Your task to perform on an android device: What's on the menu at Burger King? Image 0: 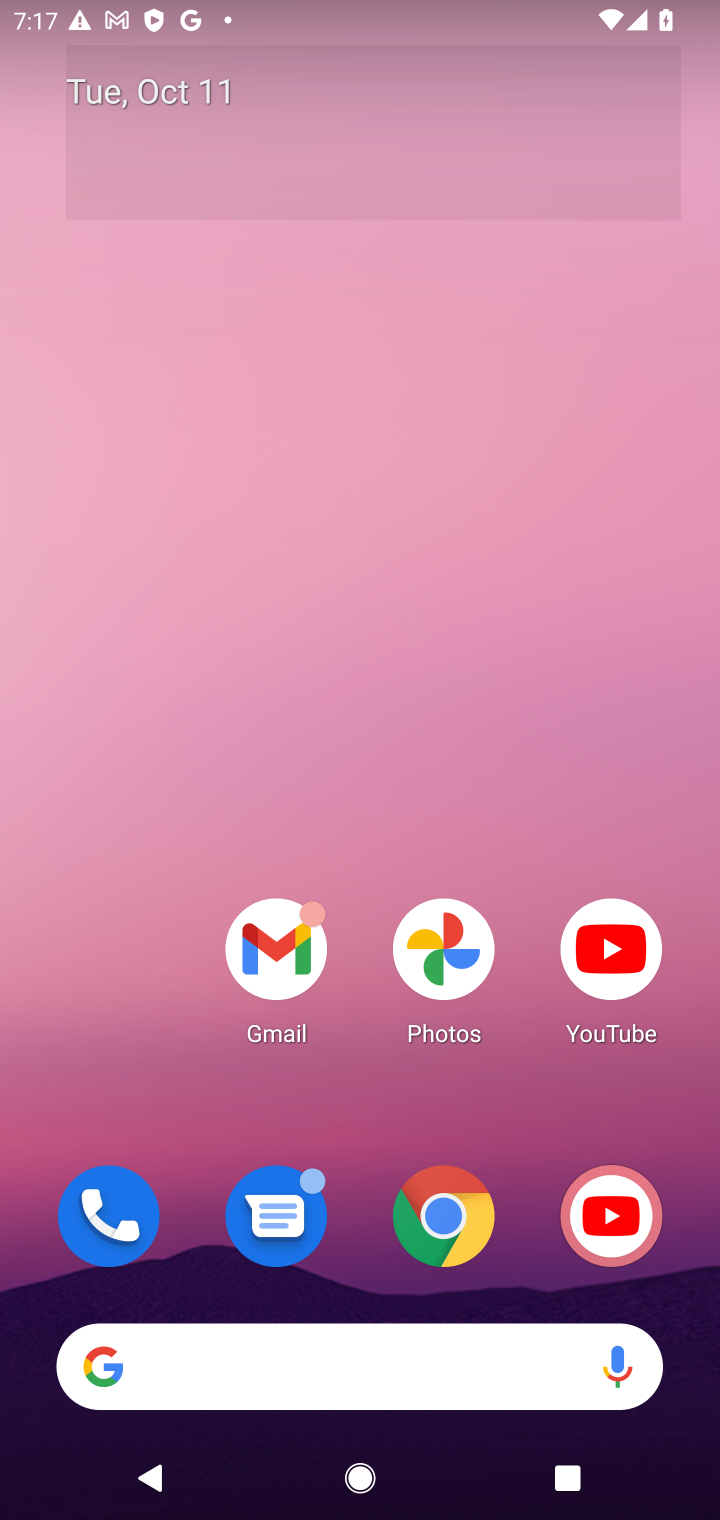
Step 0: click (463, 1202)
Your task to perform on an android device: What's on the menu at Burger King? Image 1: 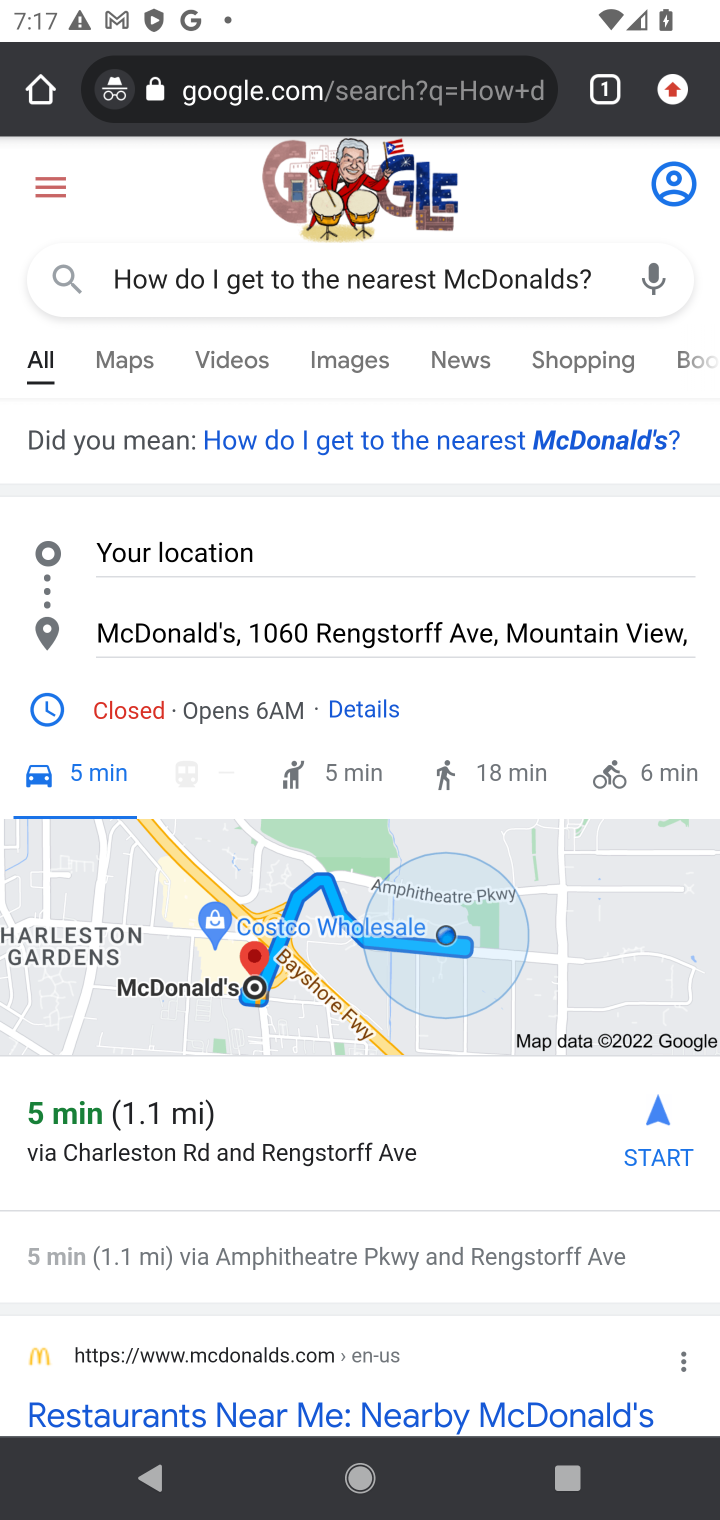
Step 1: click (547, 273)
Your task to perform on an android device: What's on the menu at Burger King? Image 2: 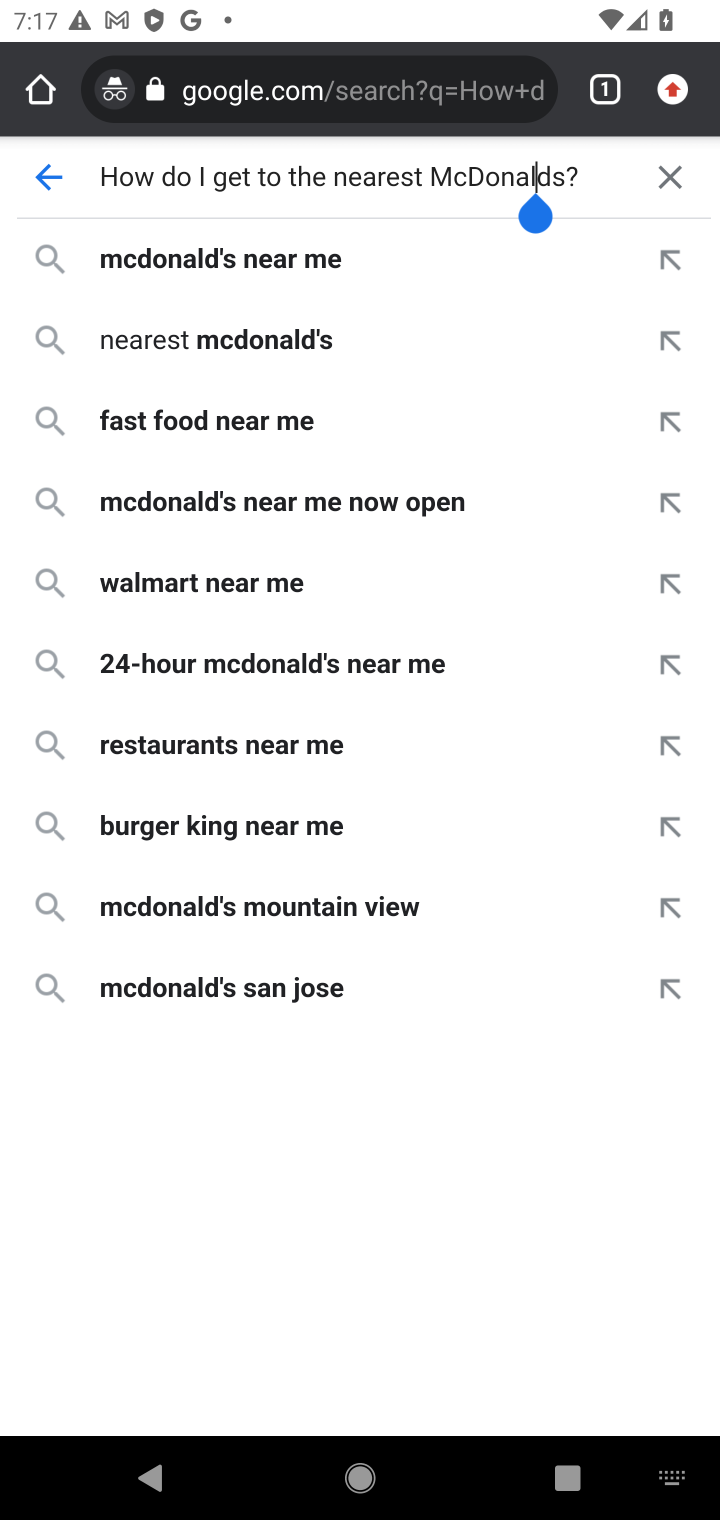
Step 2: click (677, 173)
Your task to perform on an android device: What's on the menu at Burger King? Image 3: 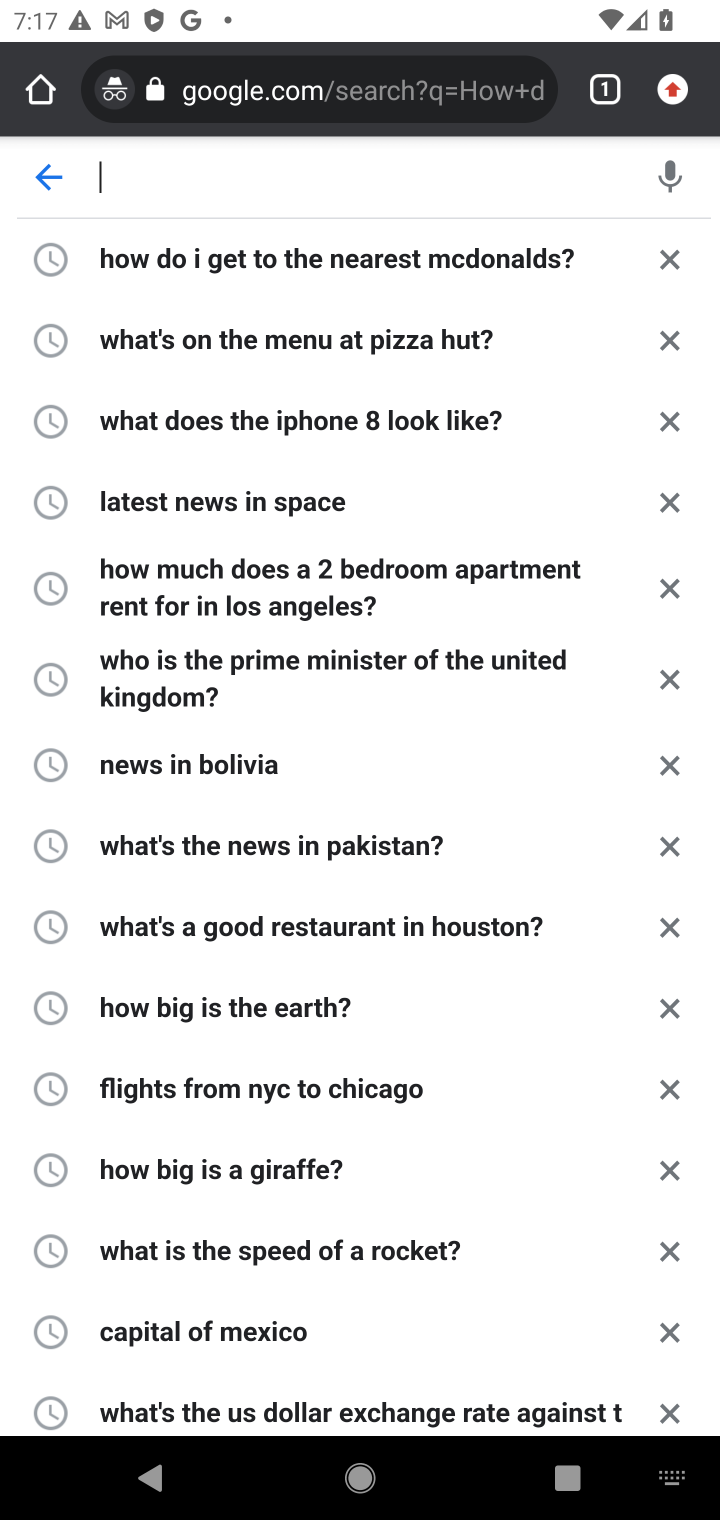
Step 3: type "What's on the menu at Burger King?"
Your task to perform on an android device: What's on the menu at Burger King? Image 4: 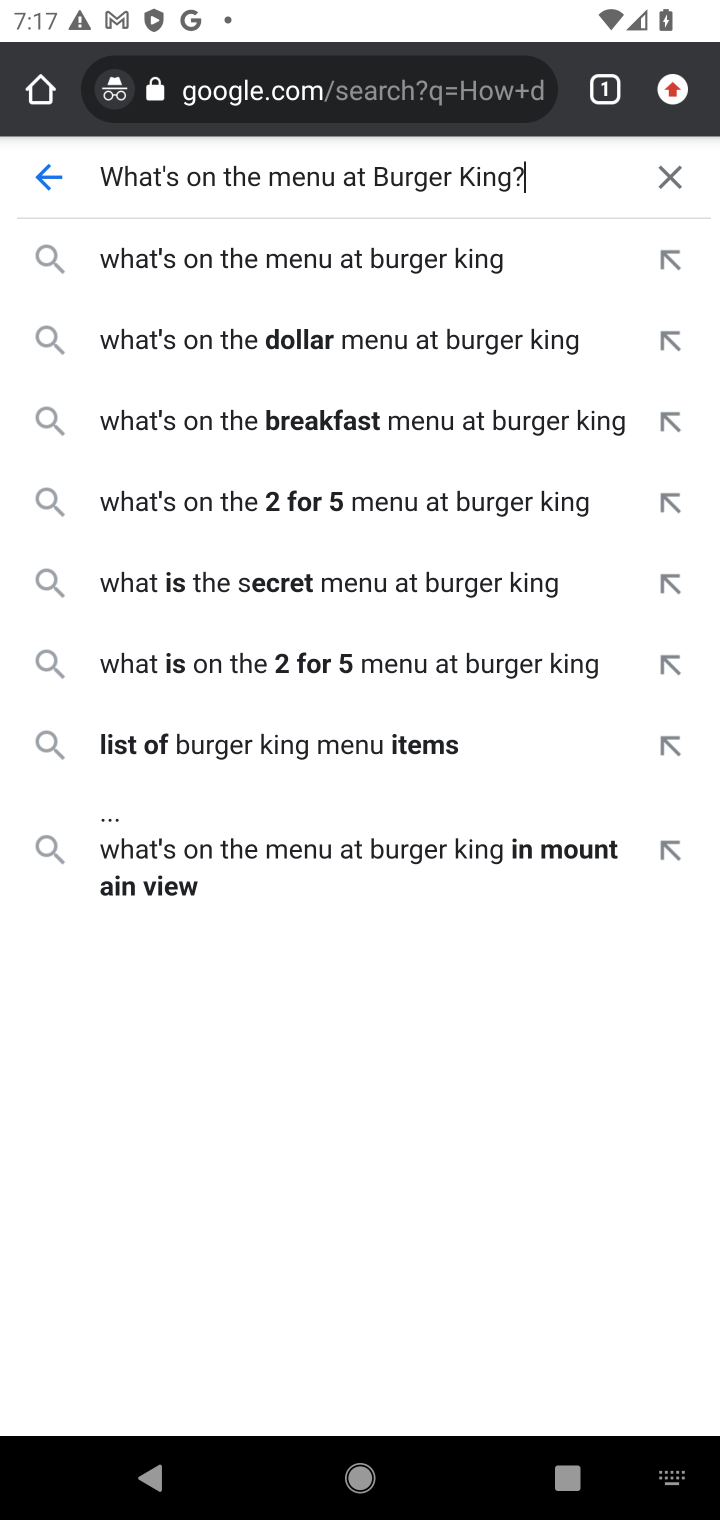
Step 4: press enter
Your task to perform on an android device: What's on the menu at Burger King? Image 5: 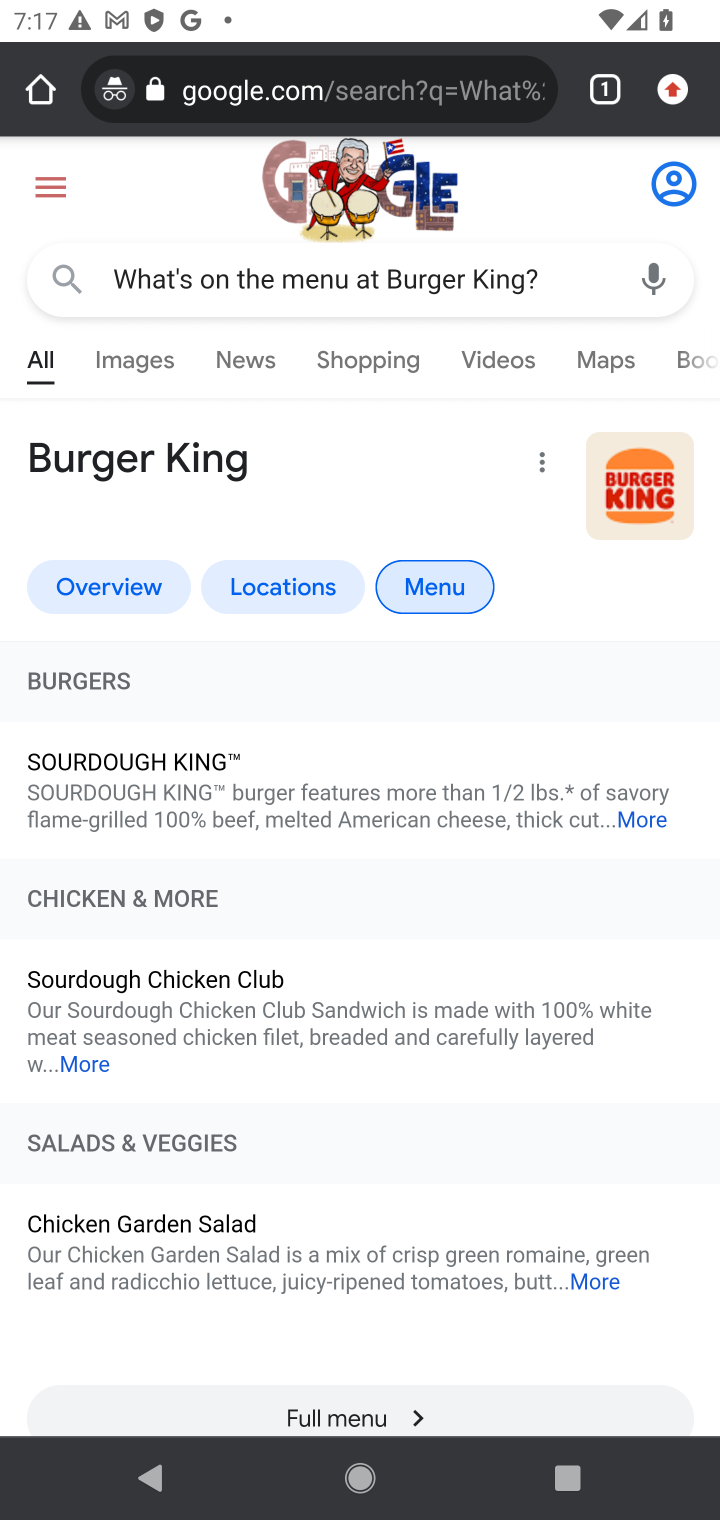
Step 5: task complete